Your task to perform on an android device: Open CNN.com Image 0: 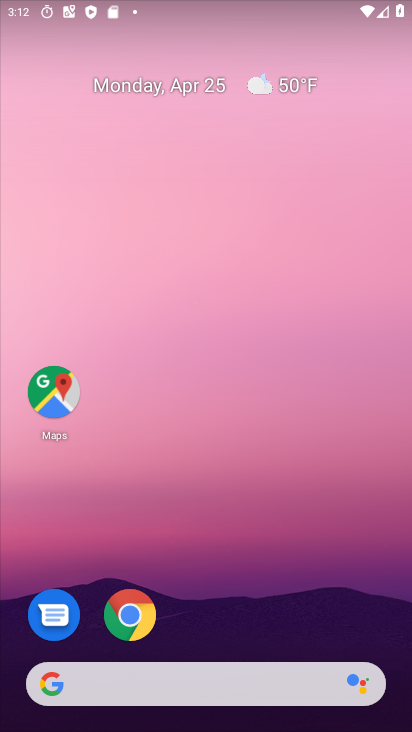
Step 0: click (123, 615)
Your task to perform on an android device: Open CNN.com Image 1: 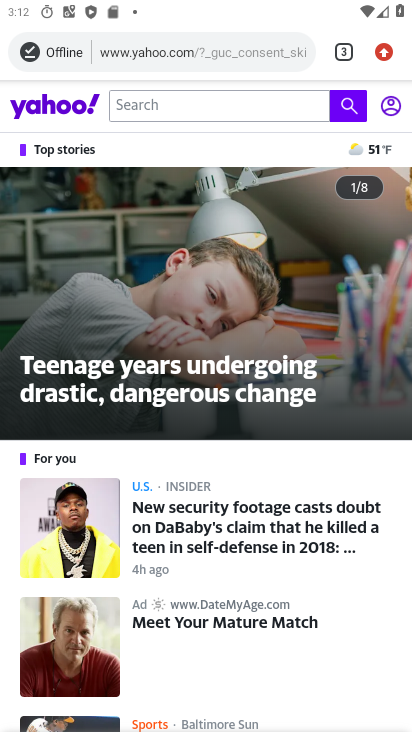
Step 1: drag from (387, 56) to (237, 162)
Your task to perform on an android device: Open CNN.com Image 2: 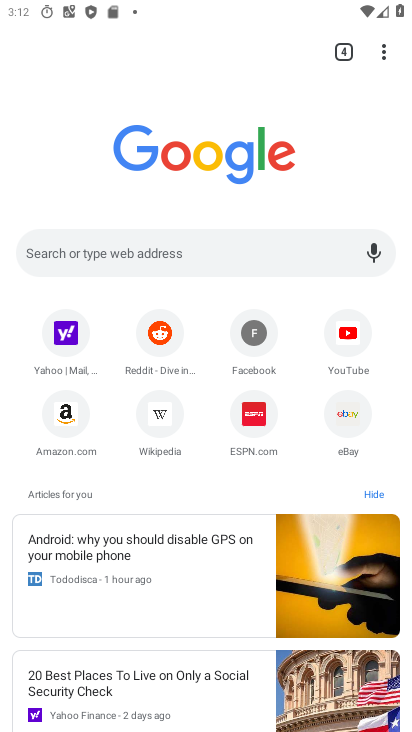
Step 2: click (224, 256)
Your task to perform on an android device: Open CNN.com Image 3: 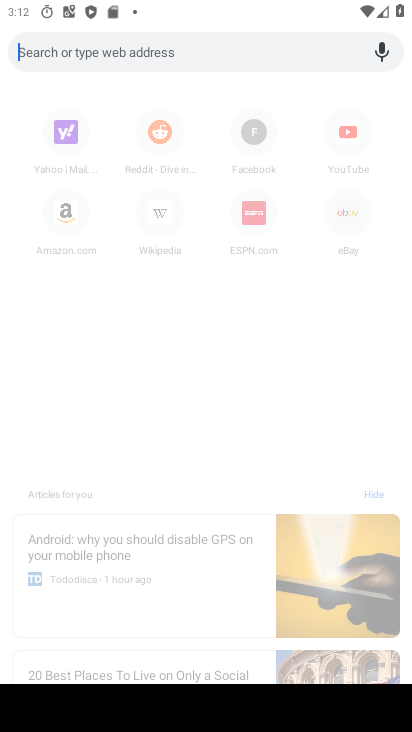
Step 3: type "CNN.com"
Your task to perform on an android device: Open CNN.com Image 4: 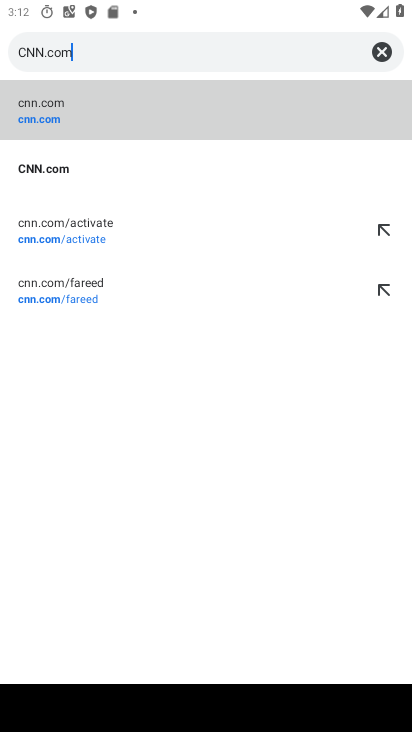
Step 4: click (50, 114)
Your task to perform on an android device: Open CNN.com Image 5: 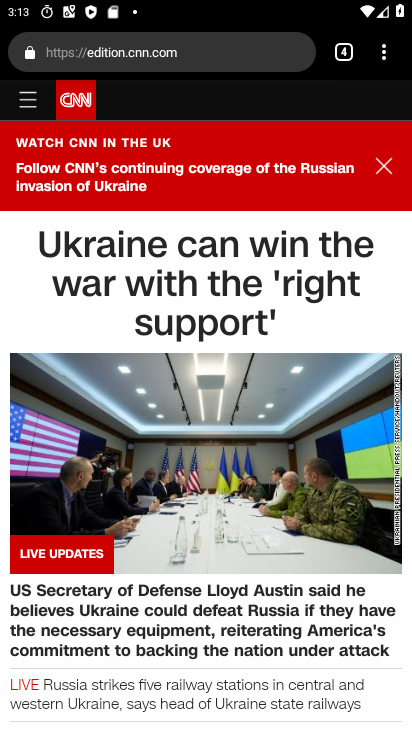
Step 5: task complete